Your task to perform on an android device: check data usage Image 0: 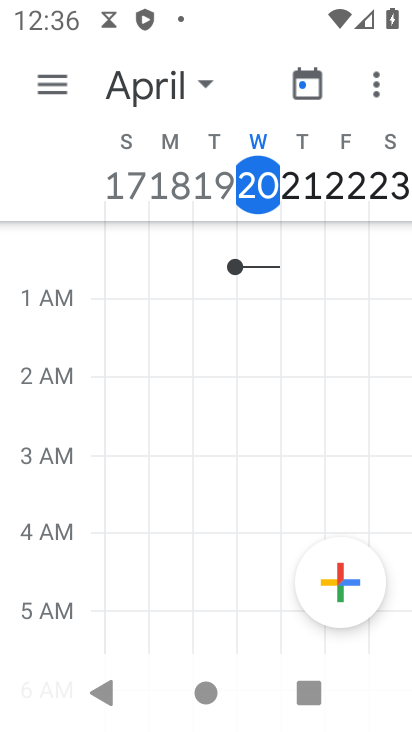
Step 0: press home button
Your task to perform on an android device: check data usage Image 1: 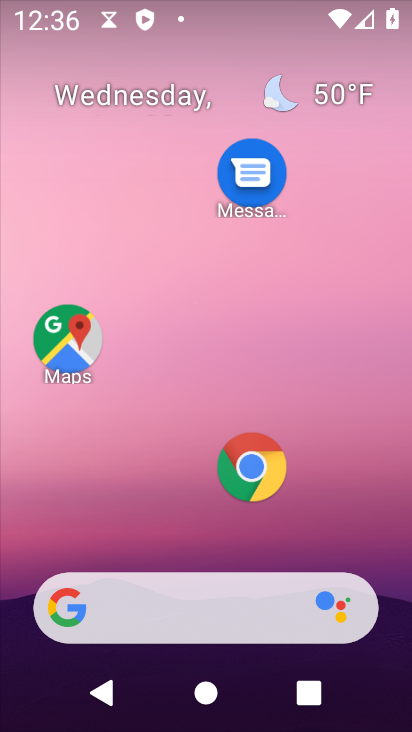
Step 1: drag from (189, 371) to (225, 3)
Your task to perform on an android device: check data usage Image 2: 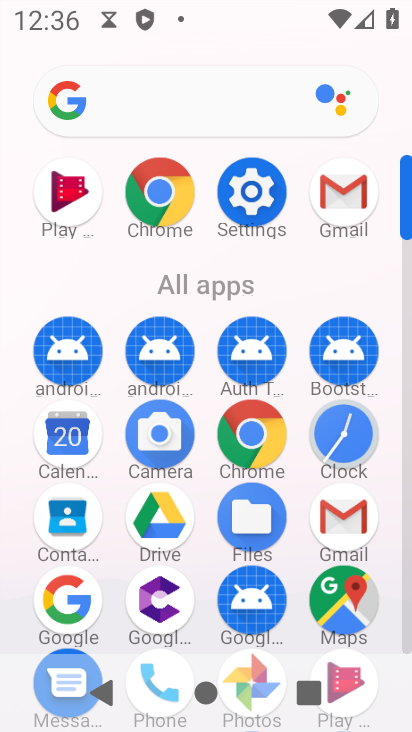
Step 2: click (258, 191)
Your task to perform on an android device: check data usage Image 3: 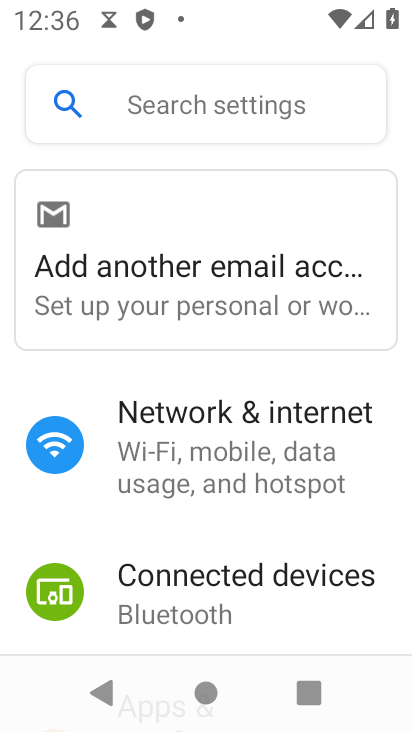
Step 3: click (196, 447)
Your task to perform on an android device: check data usage Image 4: 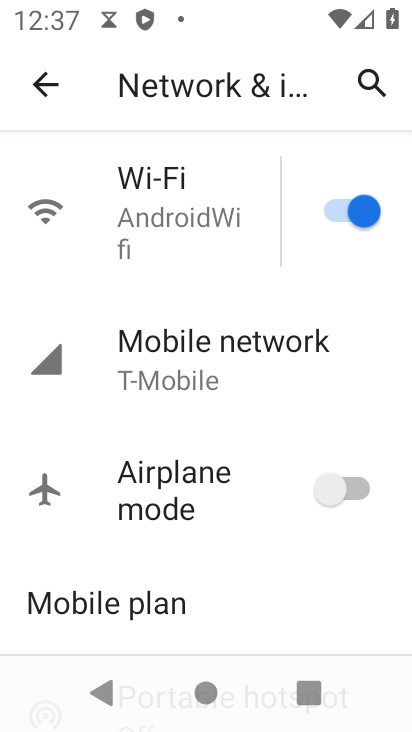
Step 4: click (223, 363)
Your task to perform on an android device: check data usage Image 5: 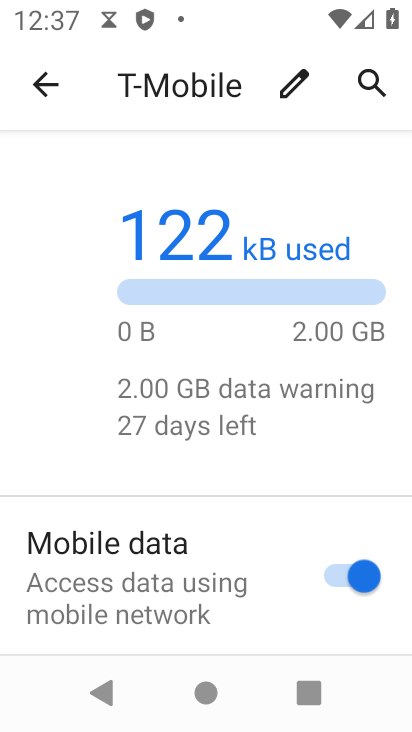
Step 5: task complete